Your task to perform on an android device: stop showing notifications on the lock screen Image 0: 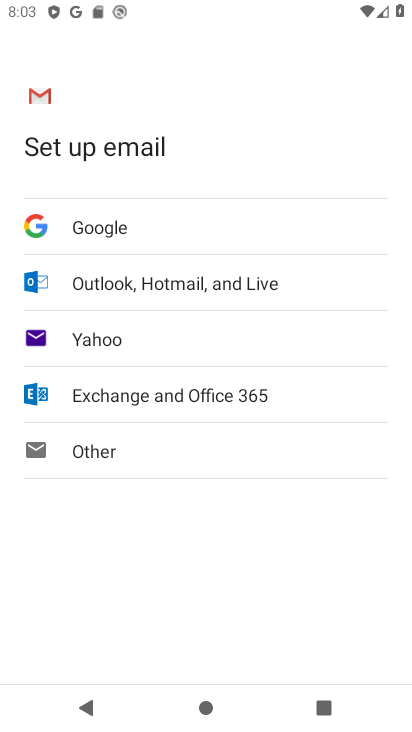
Step 0: press home button
Your task to perform on an android device: stop showing notifications on the lock screen Image 1: 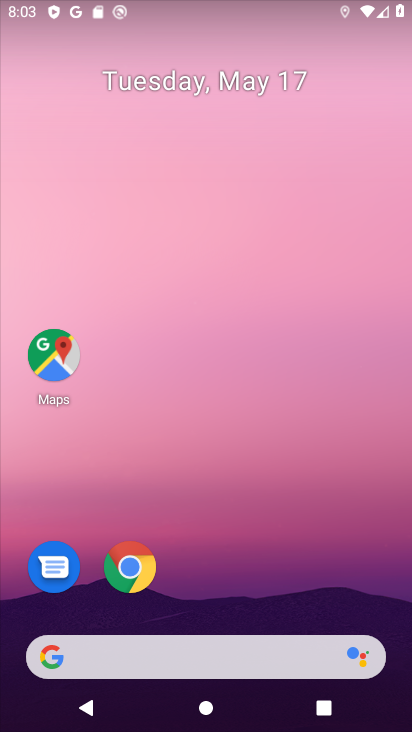
Step 1: drag from (174, 629) to (266, 92)
Your task to perform on an android device: stop showing notifications on the lock screen Image 2: 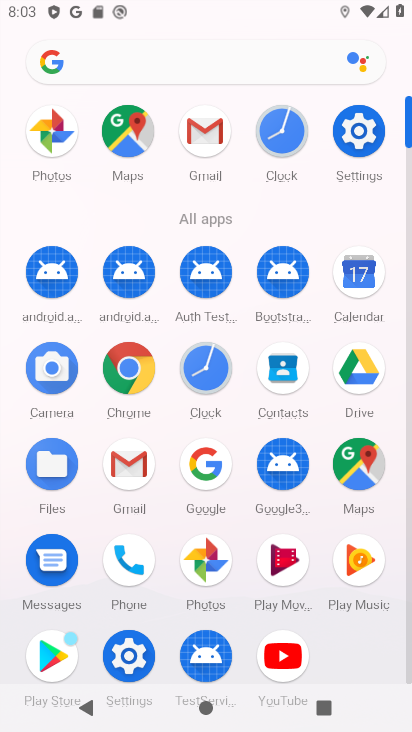
Step 2: drag from (166, 608) to (190, 418)
Your task to perform on an android device: stop showing notifications on the lock screen Image 3: 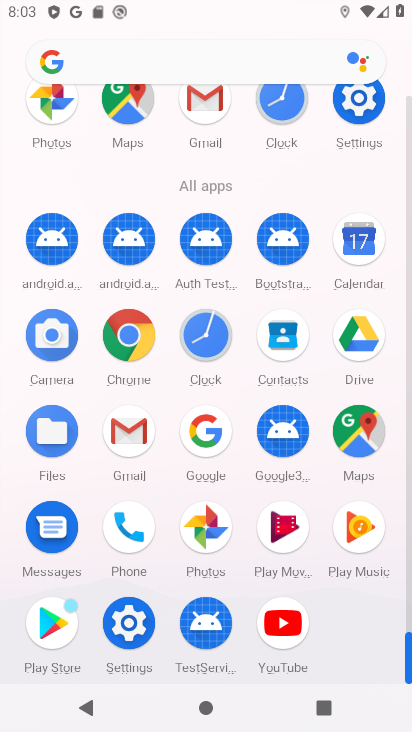
Step 3: click (121, 633)
Your task to perform on an android device: stop showing notifications on the lock screen Image 4: 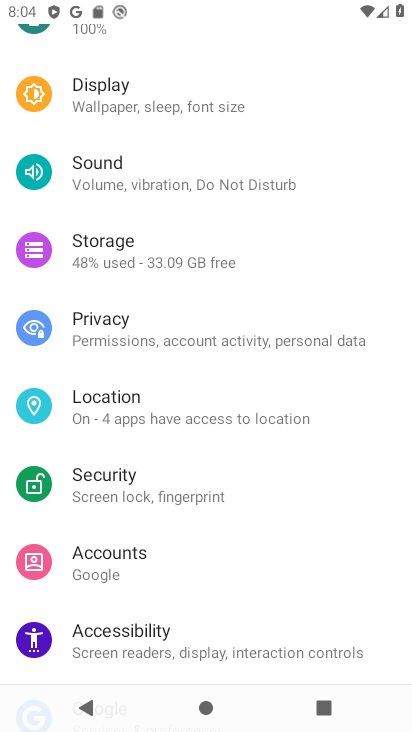
Step 4: drag from (188, 151) to (119, 460)
Your task to perform on an android device: stop showing notifications on the lock screen Image 5: 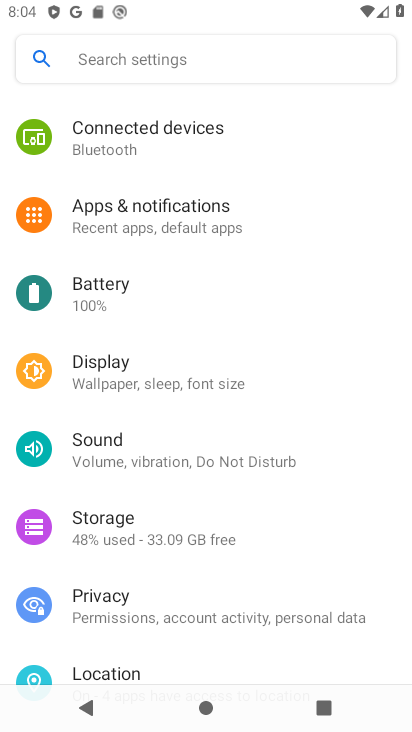
Step 5: click (166, 231)
Your task to perform on an android device: stop showing notifications on the lock screen Image 6: 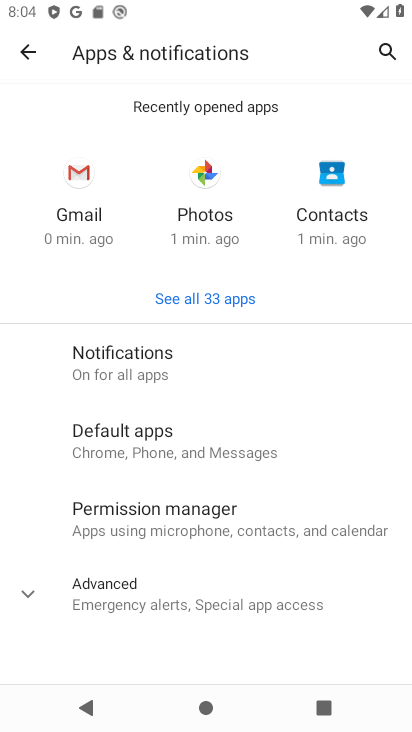
Step 6: click (220, 386)
Your task to perform on an android device: stop showing notifications on the lock screen Image 7: 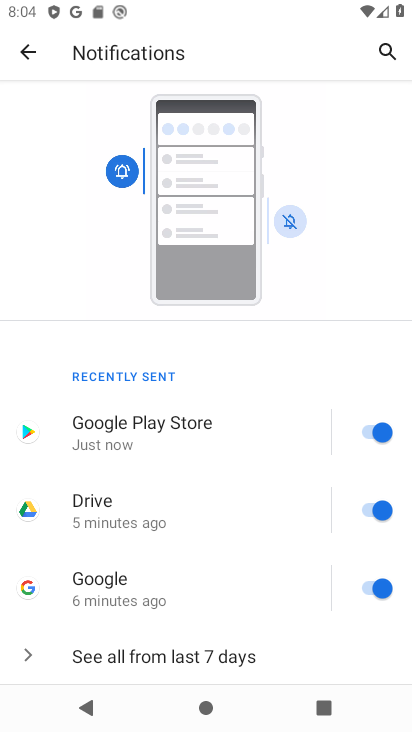
Step 7: drag from (141, 600) to (248, 292)
Your task to perform on an android device: stop showing notifications on the lock screen Image 8: 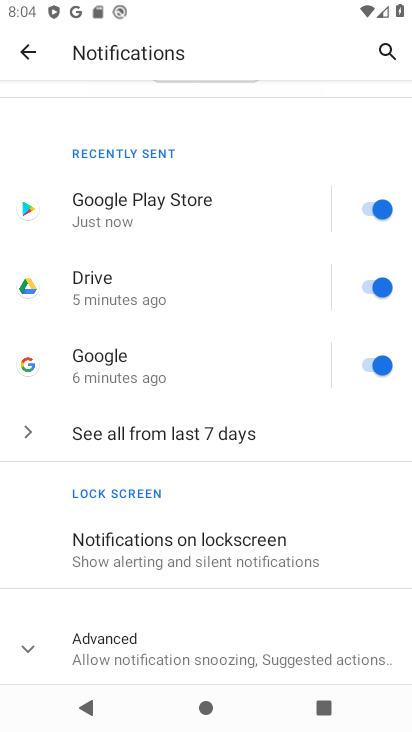
Step 8: drag from (225, 662) to (270, 472)
Your task to perform on an android device: stop showing notifications on the lock screen Image 9: 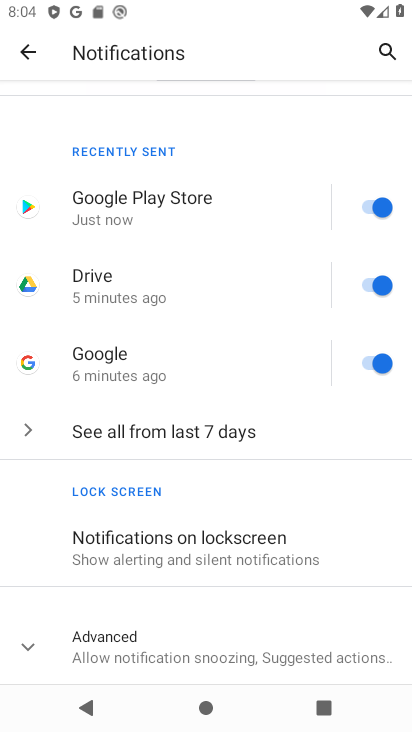
Step 9: click (201, 549)
Your task to perform on an android device: stop showing notifications on the lock screen Image 10: 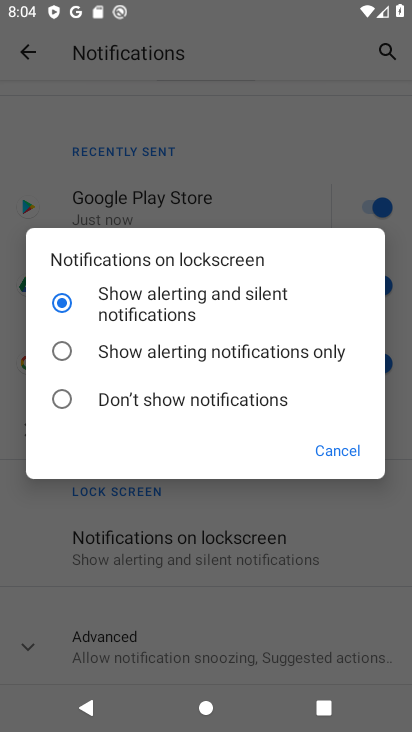
Step 10: click (202, 402)
Your task to perform on an android device: stop showing notifications on the lock screen Image 11: 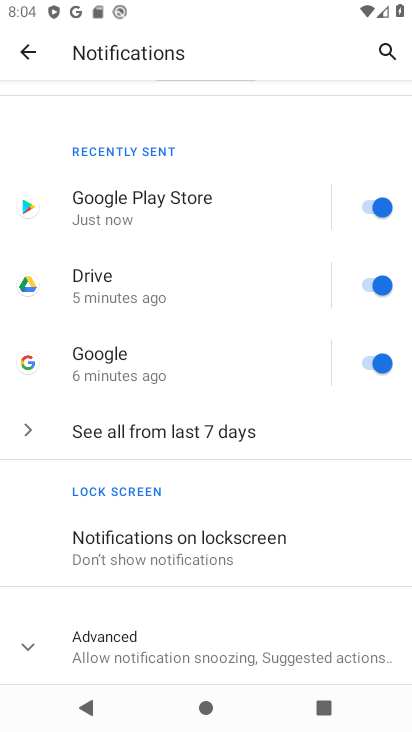
Step 11: task complete